Your task to perform on an android device: toggle data saver in the chrome app Image 0: 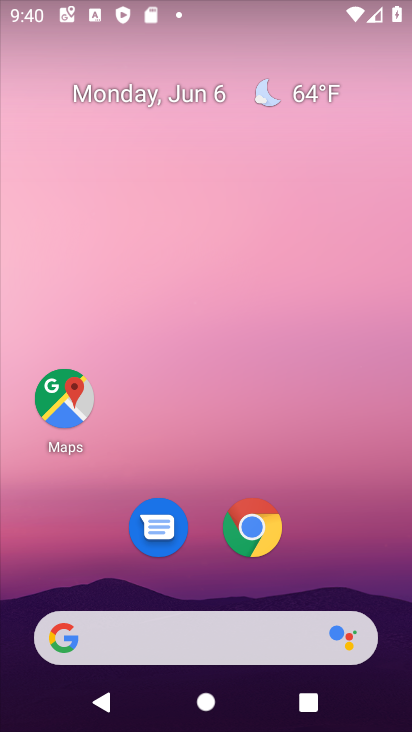
Step 0: click (261, 541)
Your task to perform on an android device: toggle data saver in the chrome app Image 1: 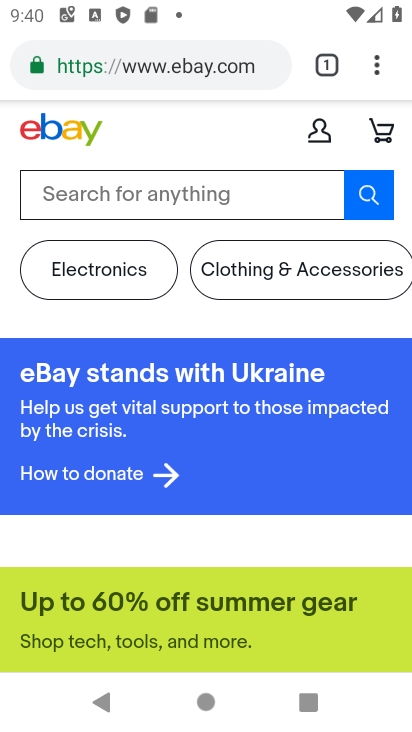
Step 1: click (375, 74)
Your task to perform on an android device: toggle data saver in the chrome app Image 2: 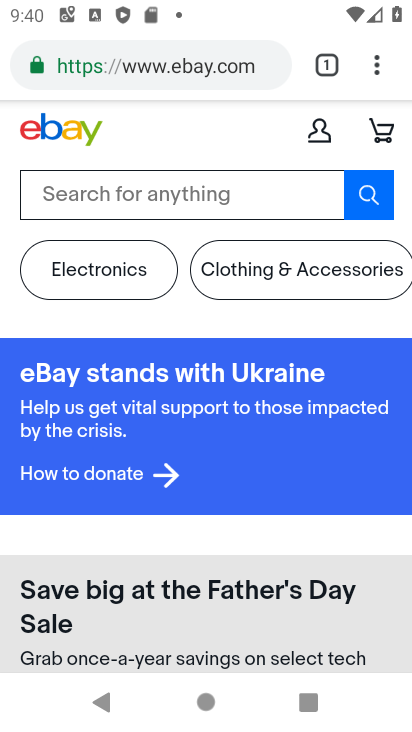
Step 2: click (379, 73)
Your task to perform on an android device: toggle data saver in the chrome app Image 3: 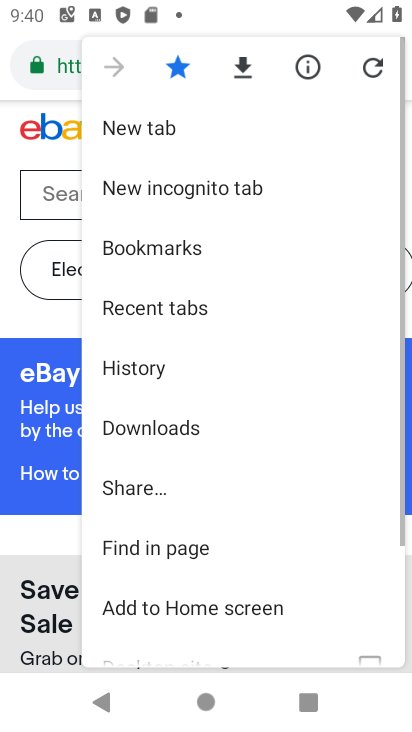
Step 3: drag from (223, 518) to (309, 209)
Your task to perform on an android device: toggle data saver in the chrome app Image 4: 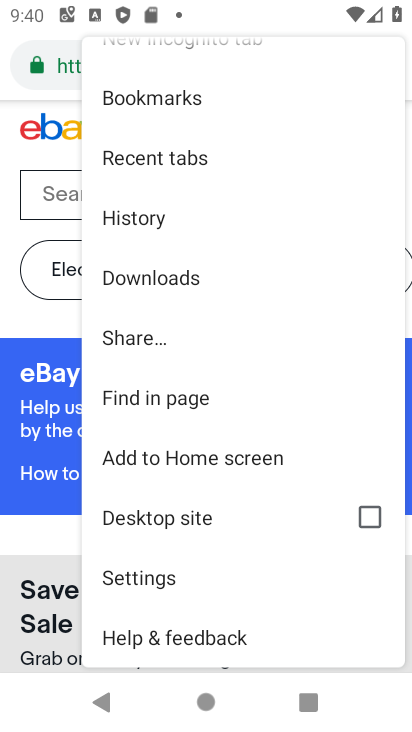
Step 4: click (191, 582)
Your task to perform on an android device: toggle data saver in the chrome app Image 5: 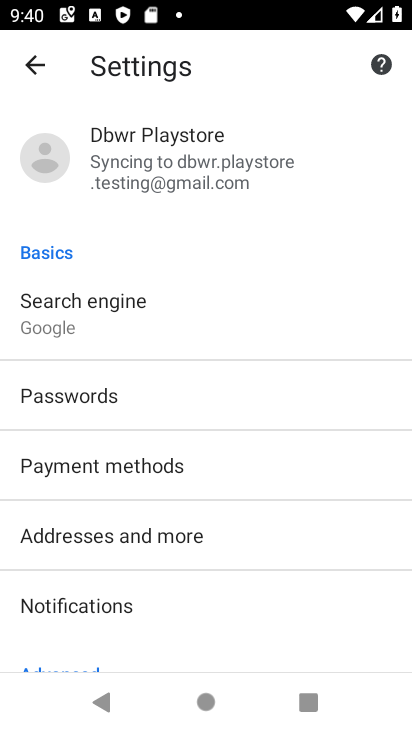
Step 5: drag from (190, 568) to (266, 108)
Your task to perform on an android device: toggle data saver in the chrome app Image 6: 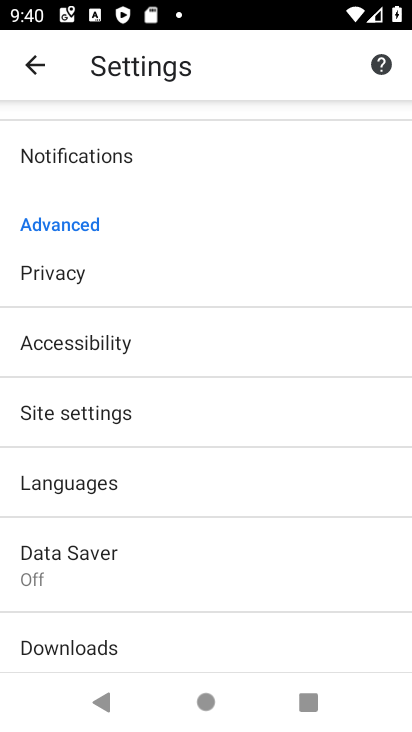
Step 6: click (99, 574)
Your task to perform on an android device: toggle data saver in the chrome app Image 7: 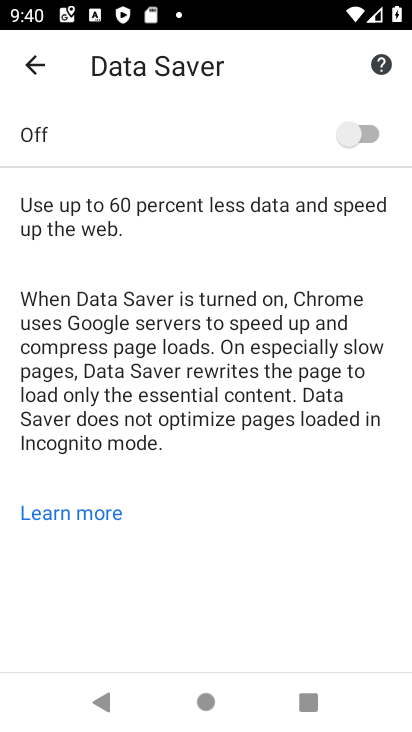
Step 7: click (355, 120)
Your task to perform on an android device: toggle data saver in the chrome app Image 8: 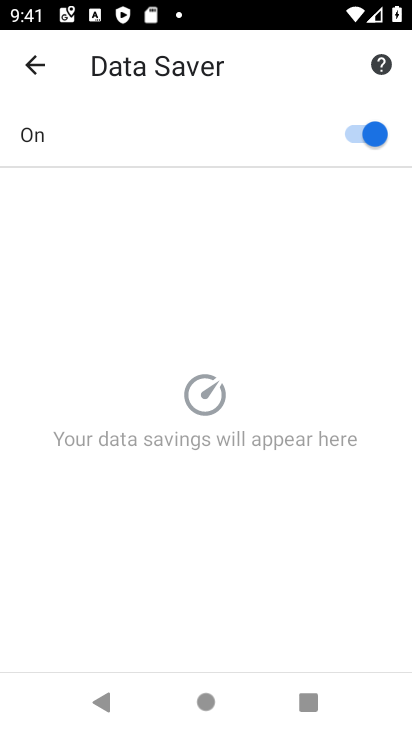
Step 8: task complete